Your task to perform on an android device: turn pop-ups on in chrome Image 0: 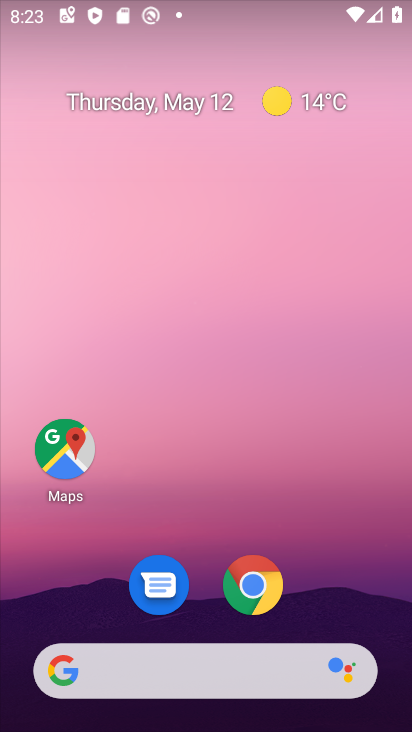
Step 0: click (257, 581)
Your task to perform on an android device: turn pop-ups on in chrome Image 1: 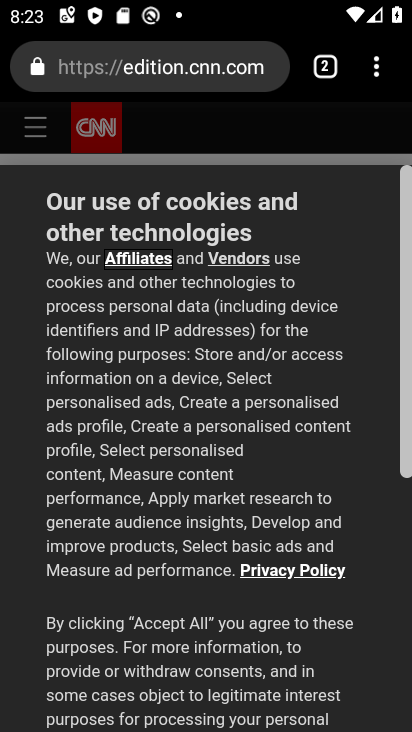
Step 1: click (377, 73)
Your task to perform on an android device: turn pop-ups on in chrome Image 2: 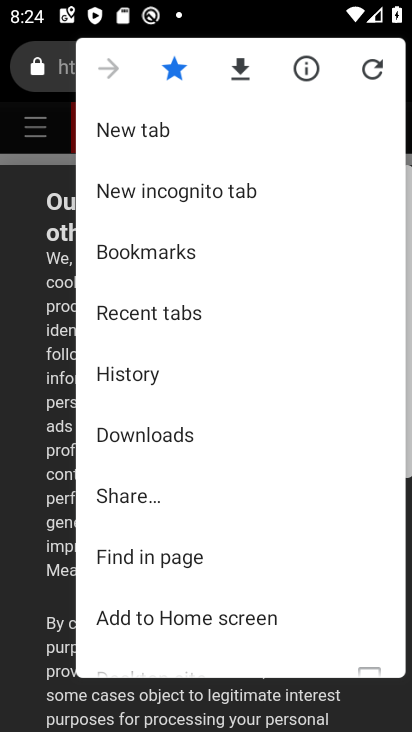
Step 2: drag from (285, 536) to (268, 262)
Your task to perform on an android device: turn pop-ups on in chrome Image 3: 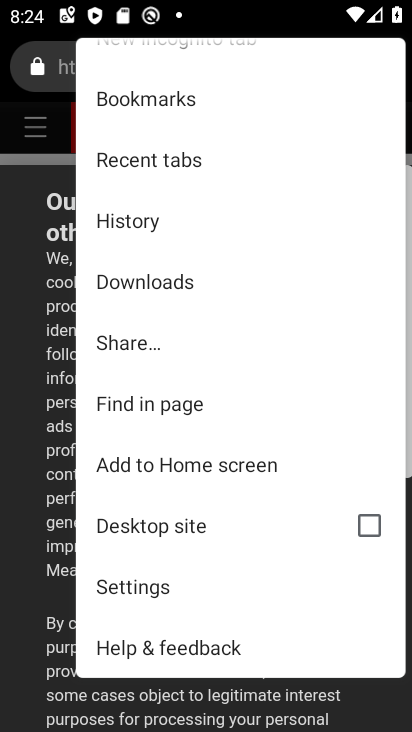
Step 3: click (194, 587)
Your task to perform on an android device: turn pop-ups on in chrome Image 4: 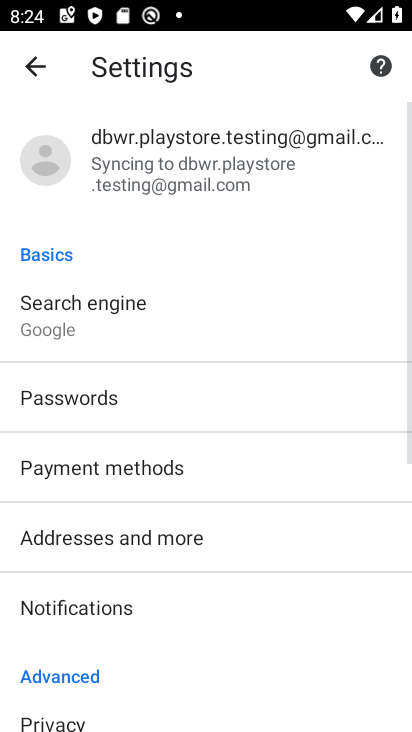
Step 4: drag from (204, 629) to (218, 262)
Your task to perform on an android device: turn pop-ups on in chrome Image 5: 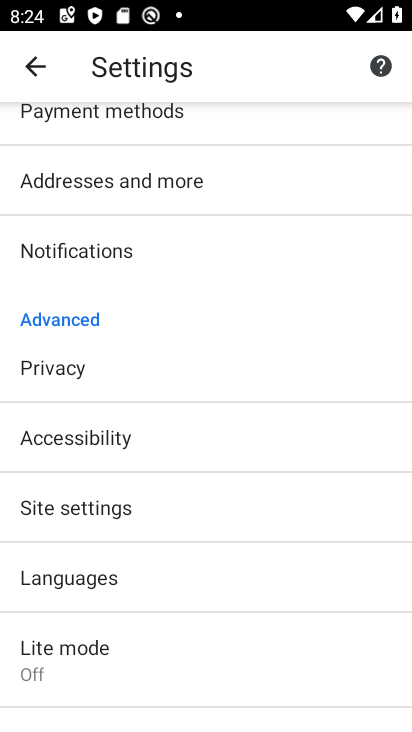
Step 5: click (223, 514)
Your task to perform on an android device: turn pop-ups on in chrome Image 6: 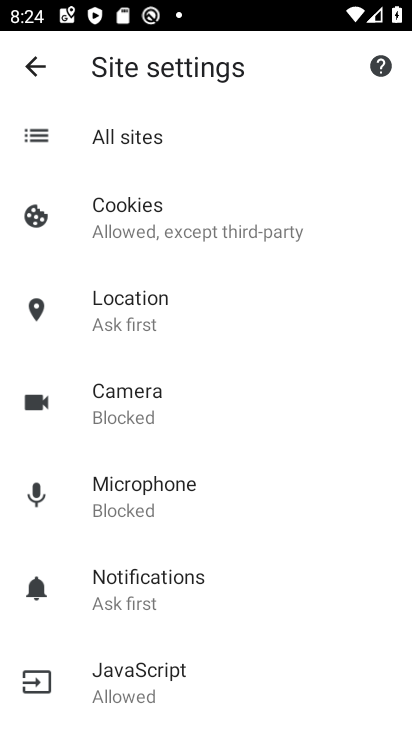
Step 6: drag from (242, 608) to (213, 278)
Your task to perform on an android device: turn pop-ups on in chrome Image 7: 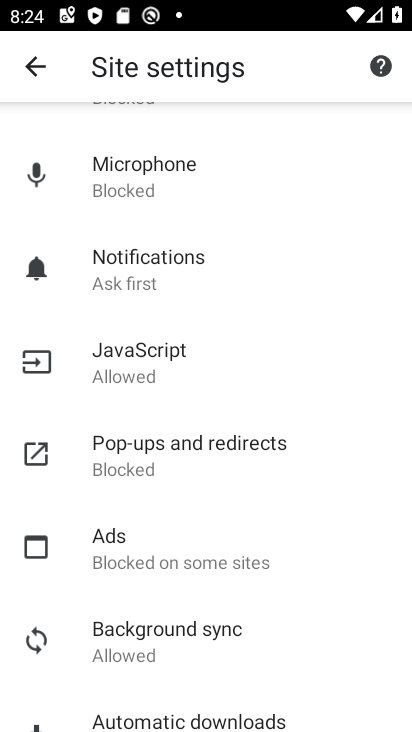
Step 7: click (237, 443)
Your task to perform on an android device: turn pop-ups on in chrome Image 8: 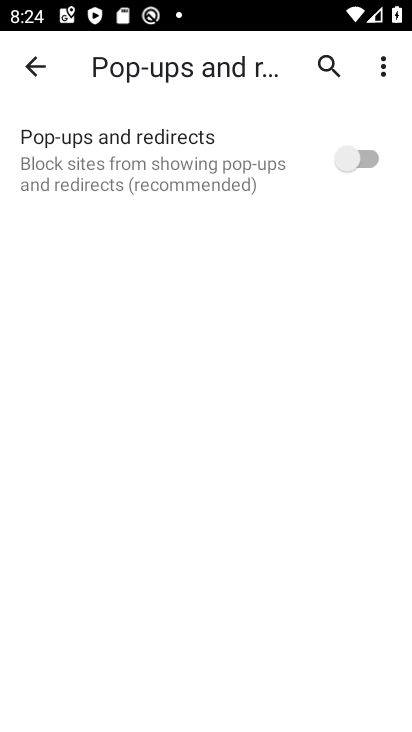
Step 8: click (357, 160)
Your task to perform on an android device: turn pop-ups on in chrome Image 9: 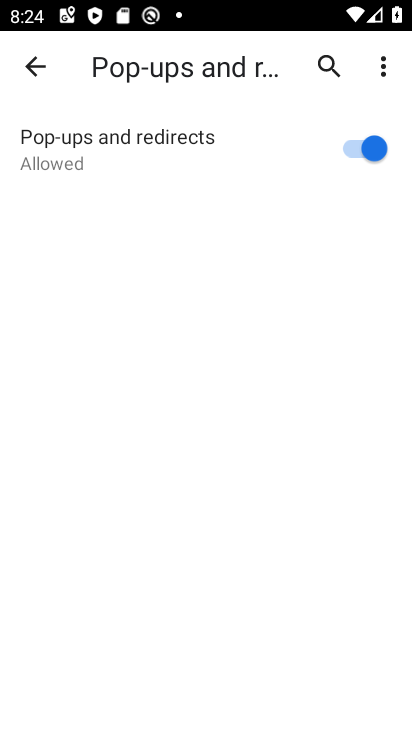
Step 9: task complete